Your task to perform on an android device: Go to CNN.com Image 0: 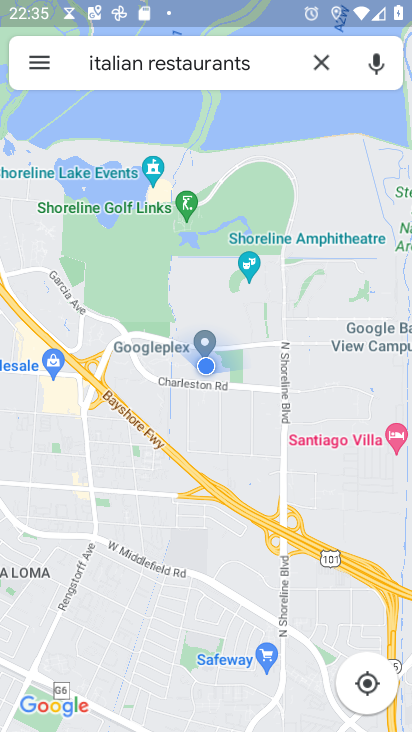
Step 0: press home button
Your task to perform on an android device: Go to CNN.com Image 1: 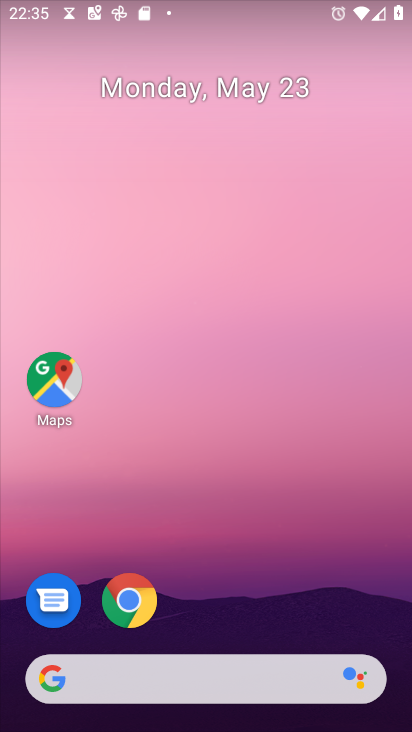
Step 1: click (126, 600)
Your task to perform on an android device: Go to CNN.com Image 2: 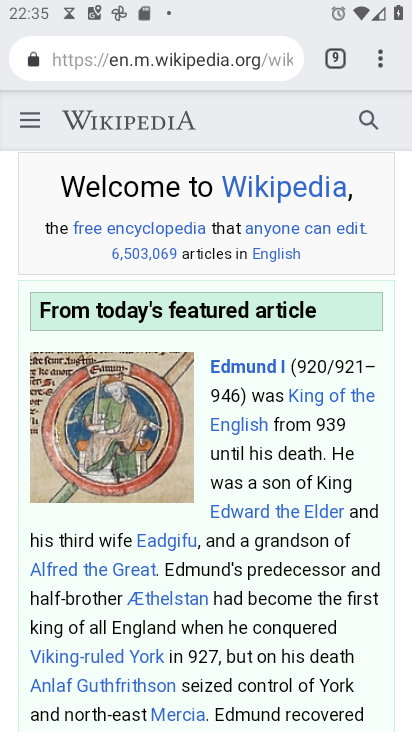
Step 2: click (382, 64)
Your task to perform on an android device: Go to CNN.com Image 3: 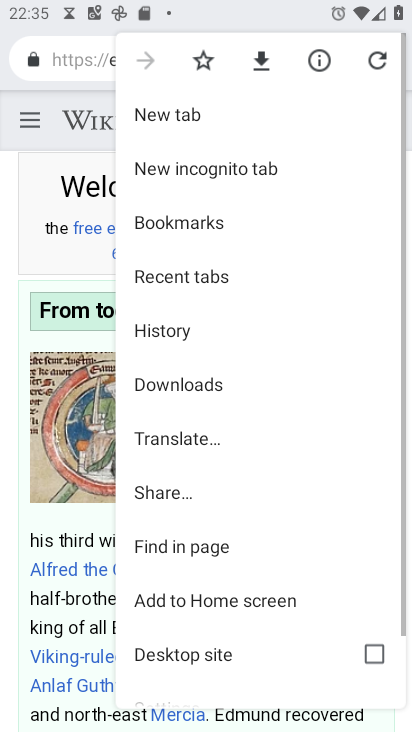
Step 3: click (159, 114)
Your task to perform on an android device: Go to CNN.com Image 4: 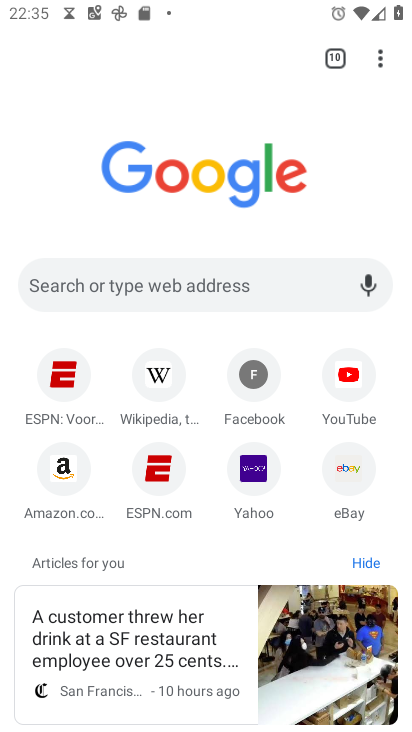
Step 4: click (225, 276)
Your task to perform on an android device: Go to CNN.com Image 5: 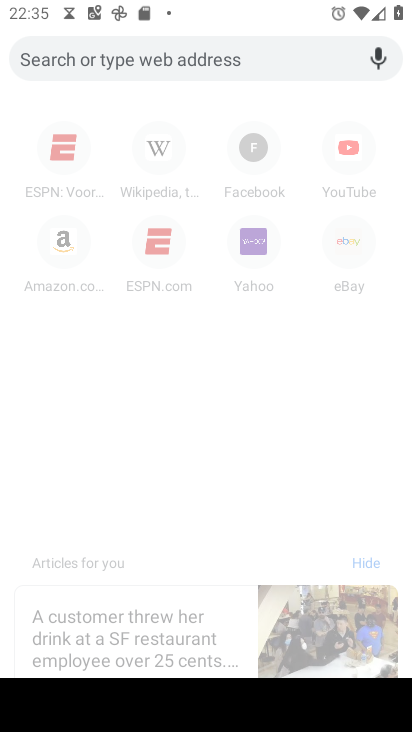
Step 5: type "CNN.com"
Your task to perform on an android device: Go to CNN.com Image 6: 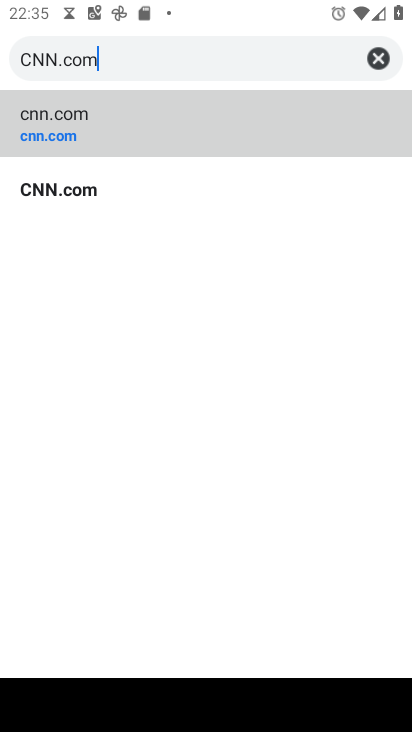
Step 6: click (53, 191)
Your task to perform on an android device: Go to CNN.com Image 7: 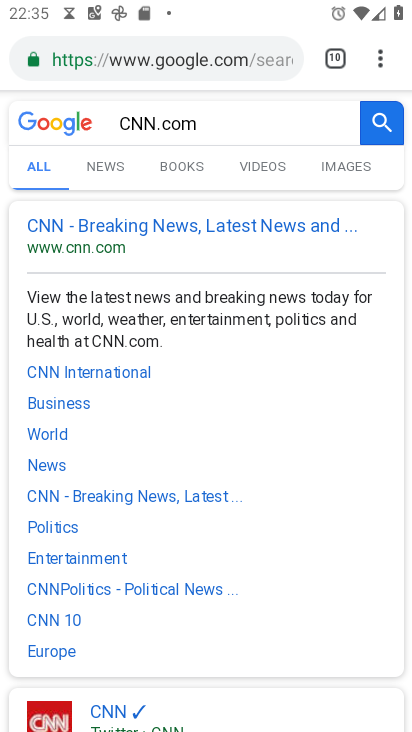
Step 7: click (102, 225)
Your task to perform on an android device: Go to CNN.com Image 8: 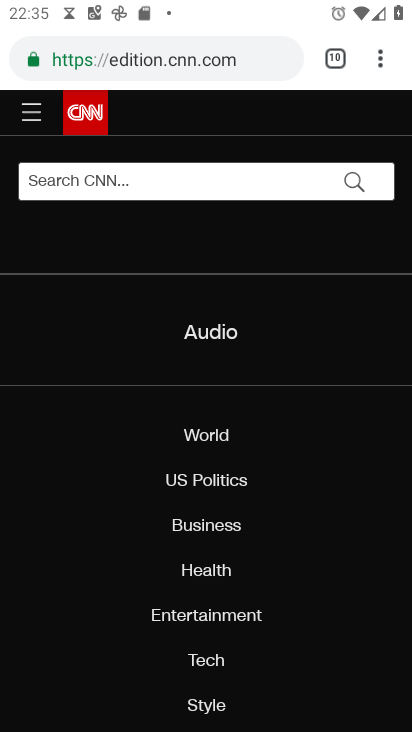
Step 8: task complete